Your task to perform on an android device: Go to Amazon Image 0: 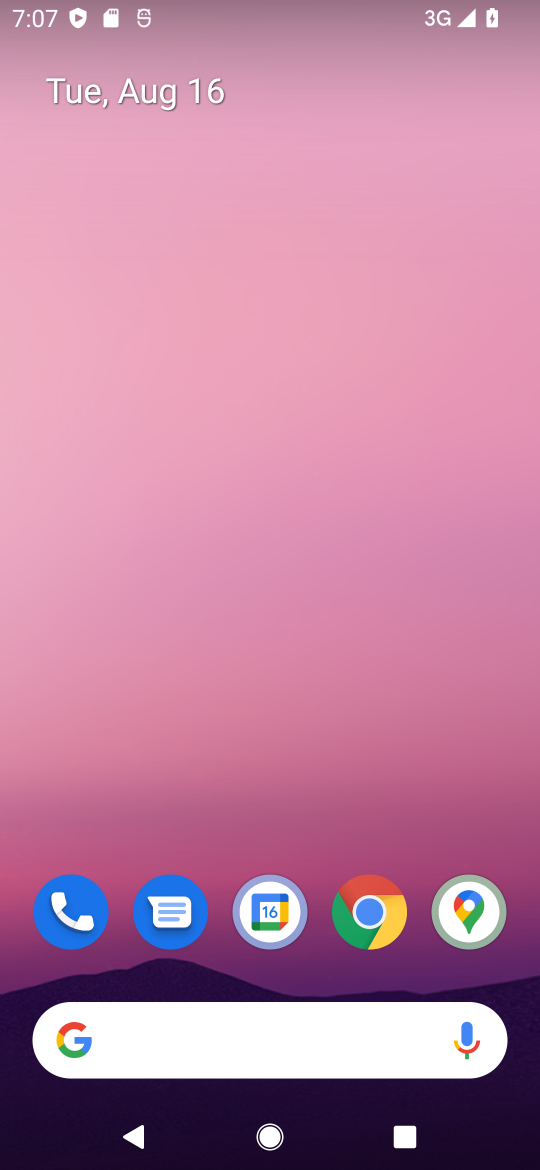
Step 0: click (369, 917)
Your task to perform on an android device: Go to Amazon Image 1: 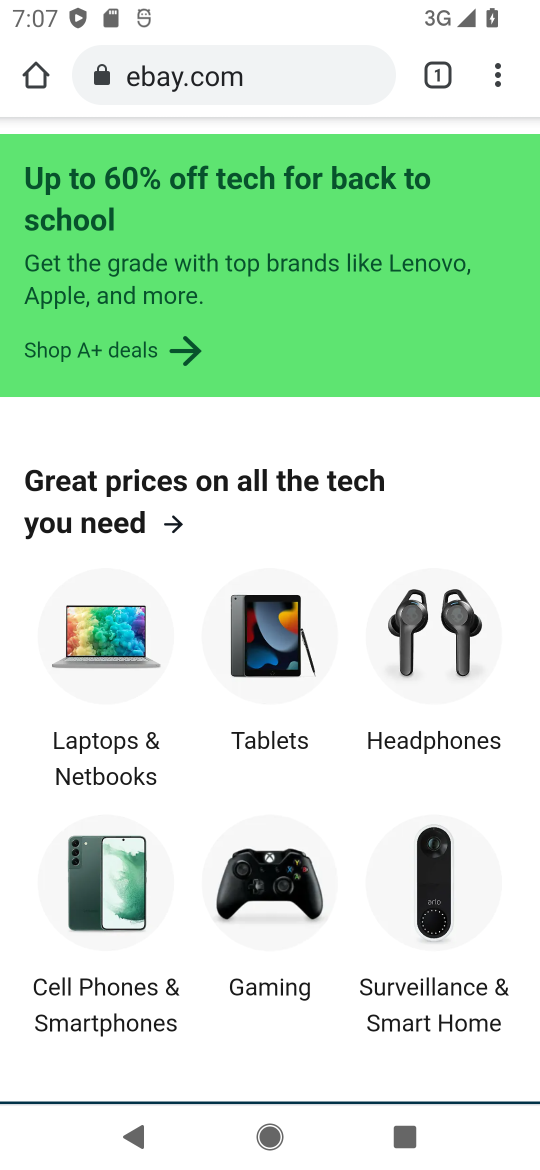
Step 1: click (265, 74)
Your task to perform on an android device: Go to Amazon Image 2: 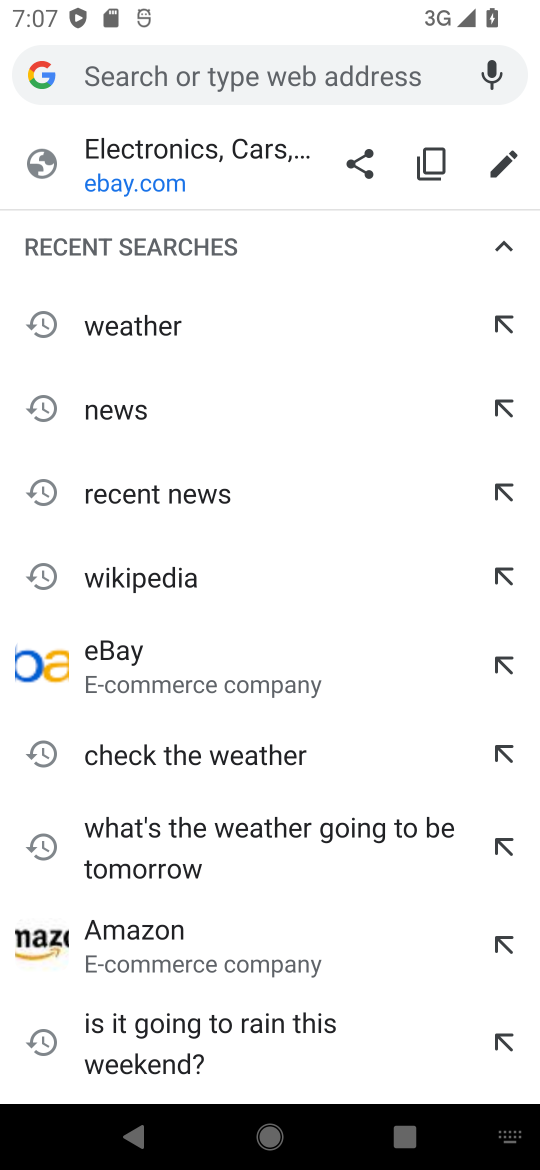
Step 2: type "amazon"
Your task to perform on an android device: Go to Amazon Image 3: 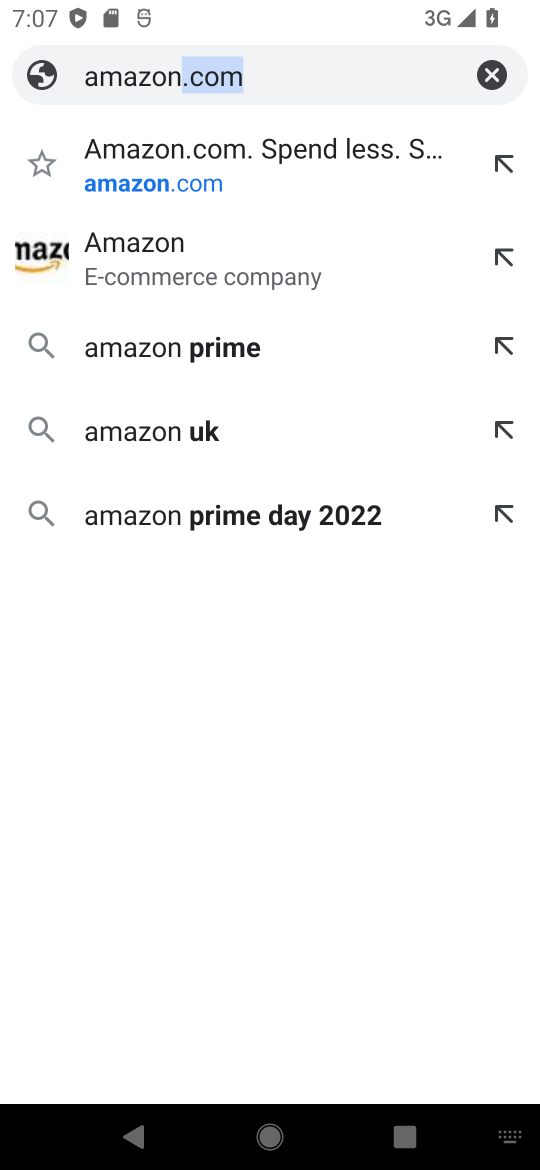
Step 3: click (206, 159)
Your task to perform on an android device: Go to Amazon Image 4: 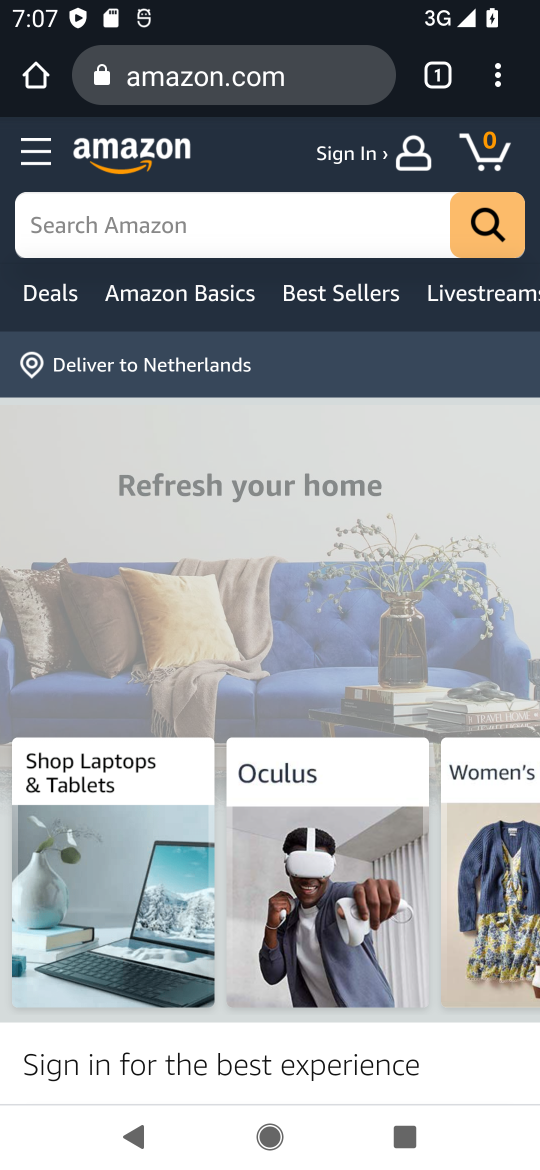
Step 4: task complete